Your task to perform on an android device: turn off location Image 0: 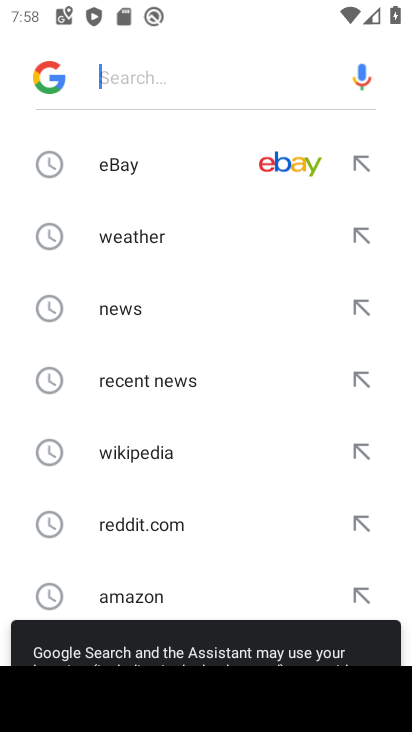
Step 0: press home button
Your task to perform on an android device: turn off location Image 1: 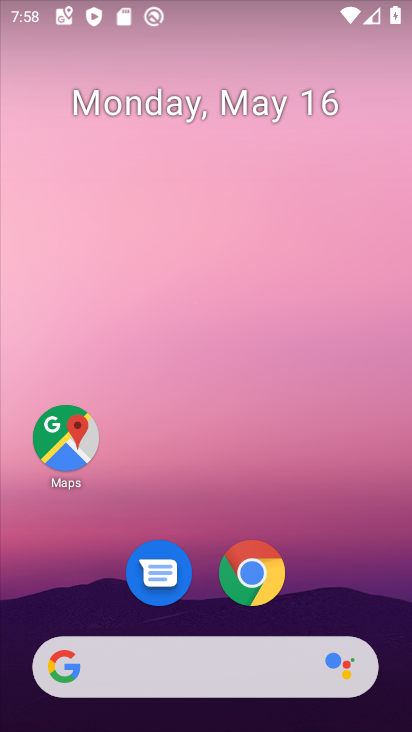
Step 1: drag from (339, 553) to (287, 35)
Your task to perform on an android device: turn off location Image 2: 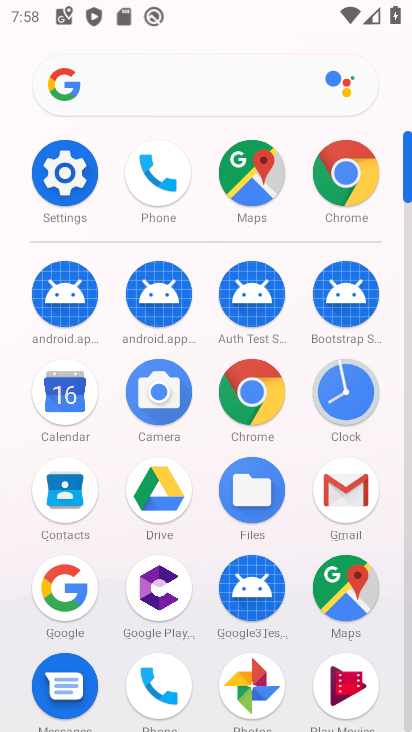
Step 2: click (44, 156)
Your task to perform on an android device: turn off location Image 3: 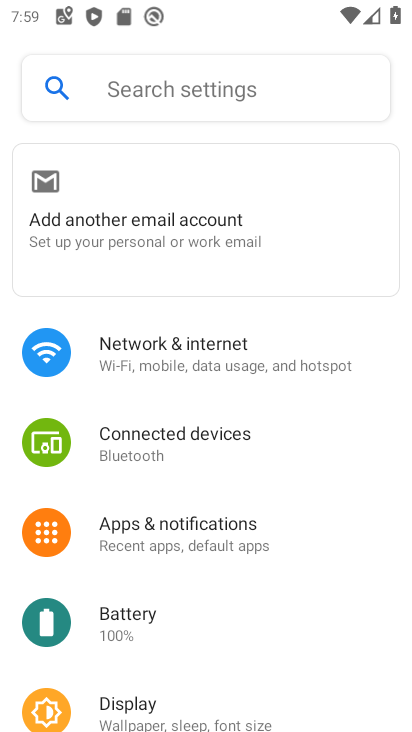
Step 3: drag from (192, 525) to (175, 117)
Your task to perform on an android device: turn off location Image 4: 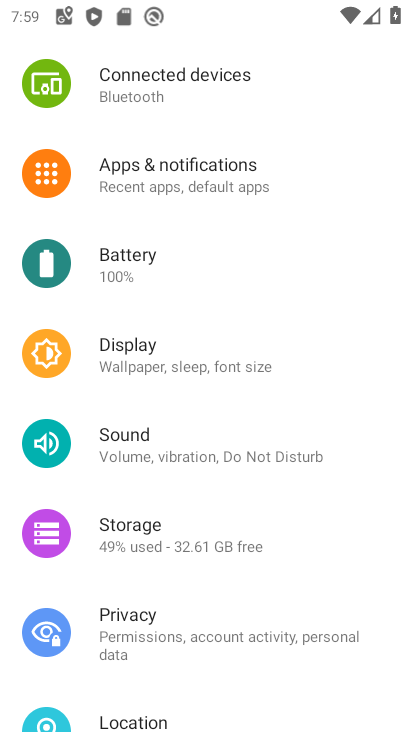
Step 4: drag from (186, 666) to (189, 296)
Your task to perform on an android device: turn off location Image 5: 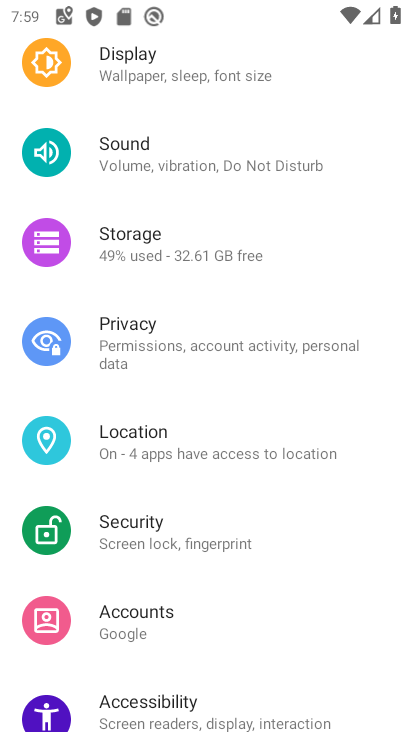
Step 5: click (150, 442)
Your task to perform on an android device: turn off location Image 6: 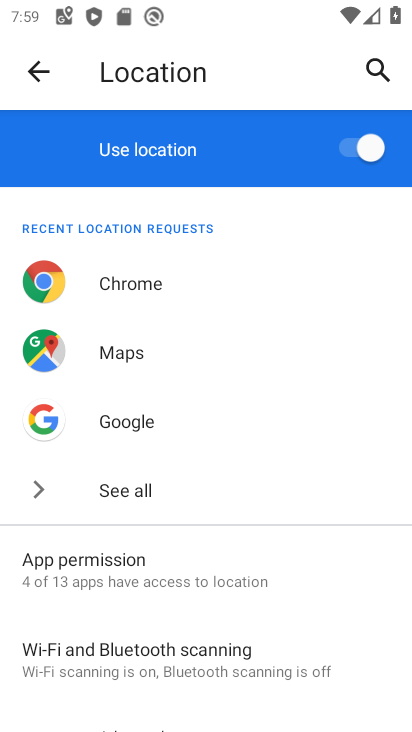
Step 6: click (365, 152)
Your task to perform on an android device: turn off location Image 7: 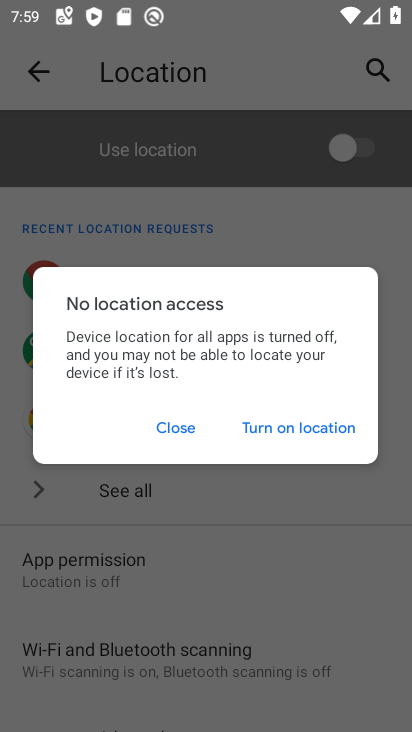
Step 7: task complete